Your task to perform on an android device: check android version Image 0: 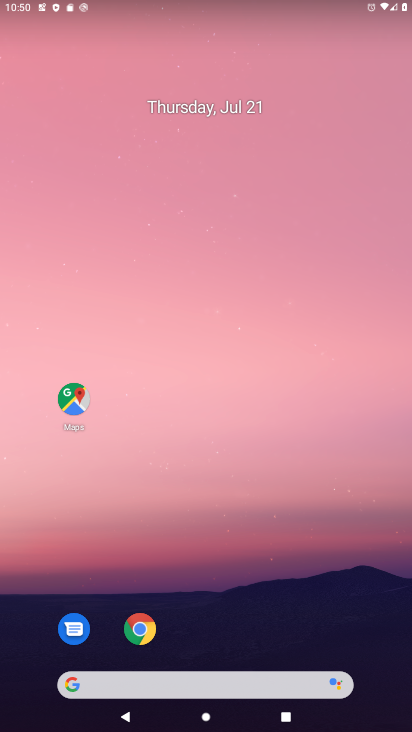
Step 0: drag from (373, 682) to (339, 23)
Your task to perform on an android device: check android version Image 1: 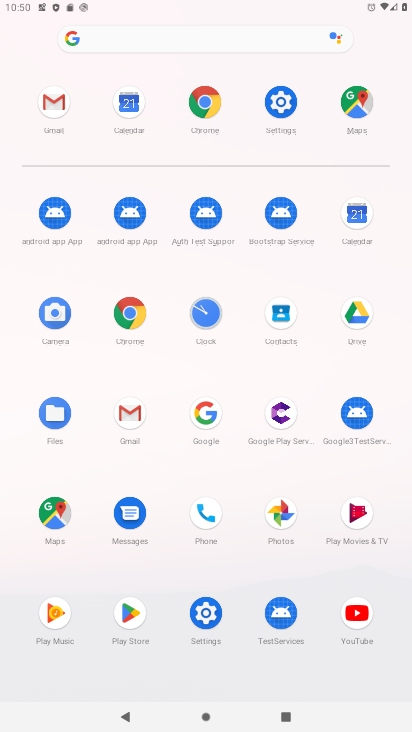
Step 1: click (263, 76)
Your task to perform on an android device: check android version Image 2: 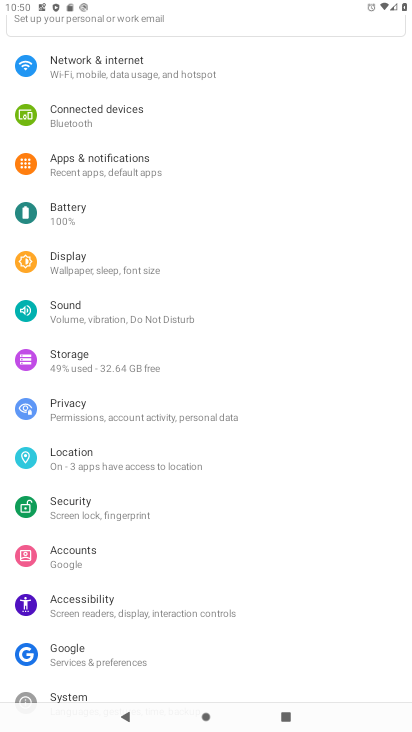
Step 2: drag from (116, 639) to (190, 238)
Your task to perform on an android device: check android version Image 3: 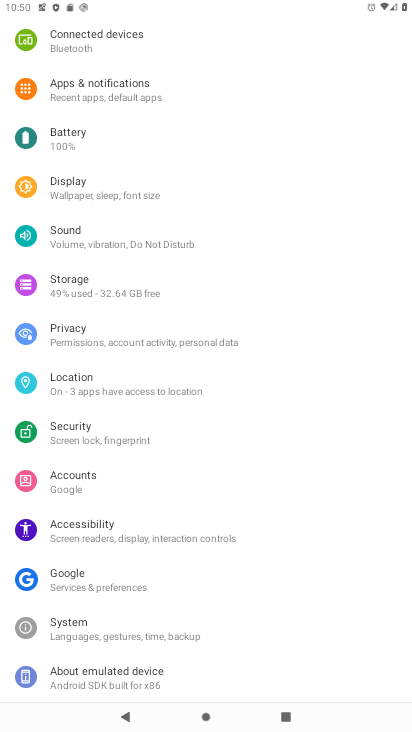
Step 3: click (116, 678)
Your task to perform on an android device: check android version Image 4: 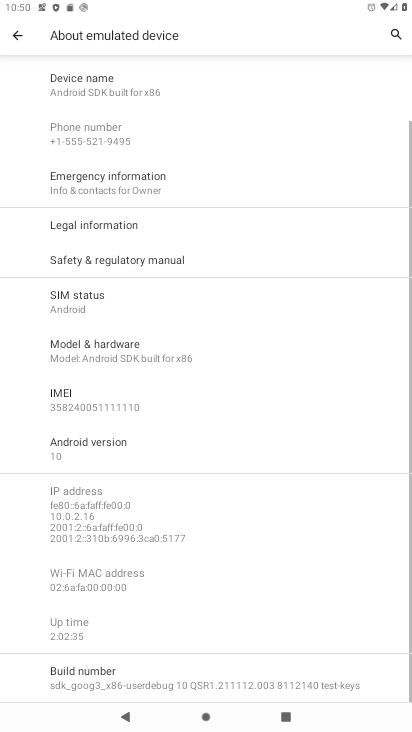
Step 4: click (46, 466)
Your task to perform on an android device: check android version Image 5: 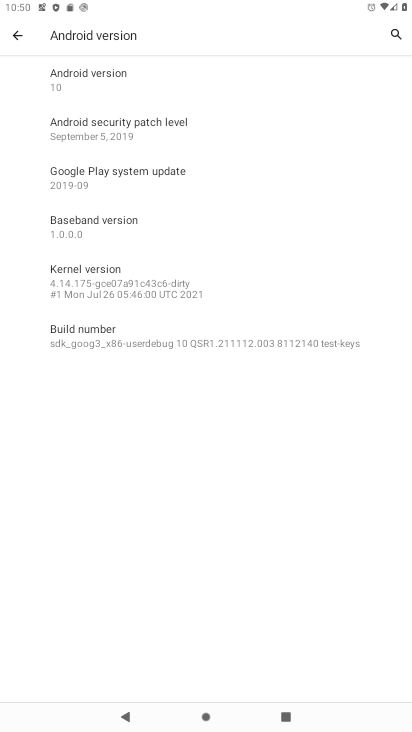
Step 5: task complete